Your task to perform on an android device: refresh tabs in the chrome app Image 0: 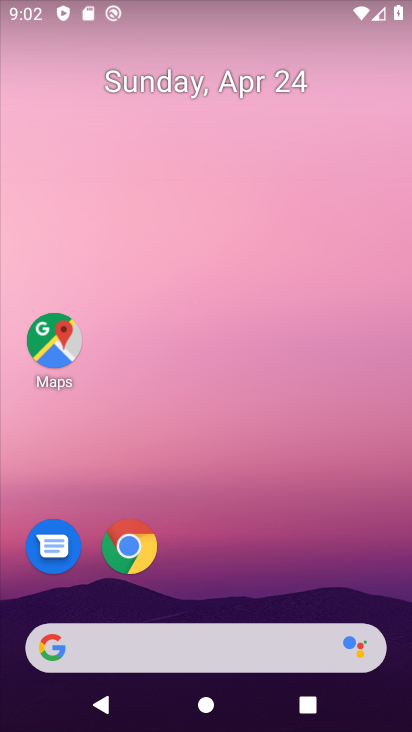
Step 0: drag from (258, 585) to (290, 214)
Your task to perform on an android device: refresh tabs in the chrome app Image 1: 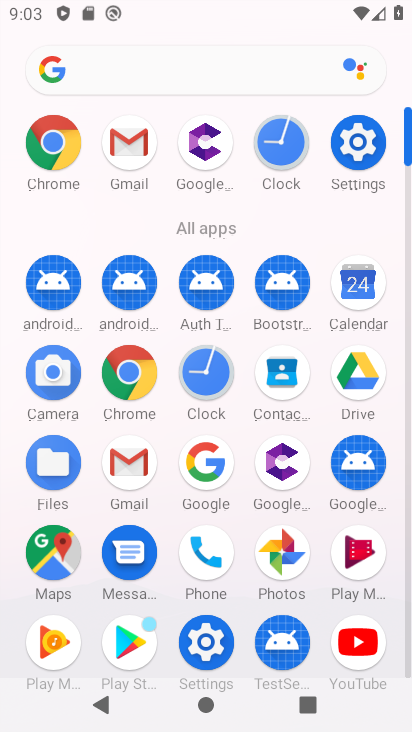
Step 1: click (119, 367)
Your task to perform on an android device: refresh tabs in the chrome app Image 2: 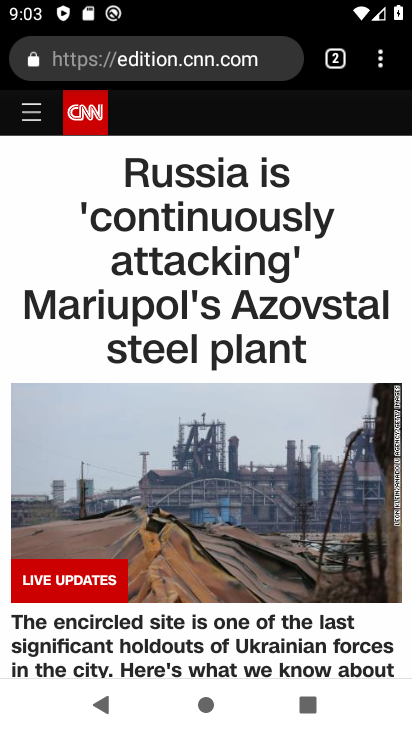
Step 2: click (393, 55)
Your task to perform on an android device: refresh tabs in the chrome app Image 3: 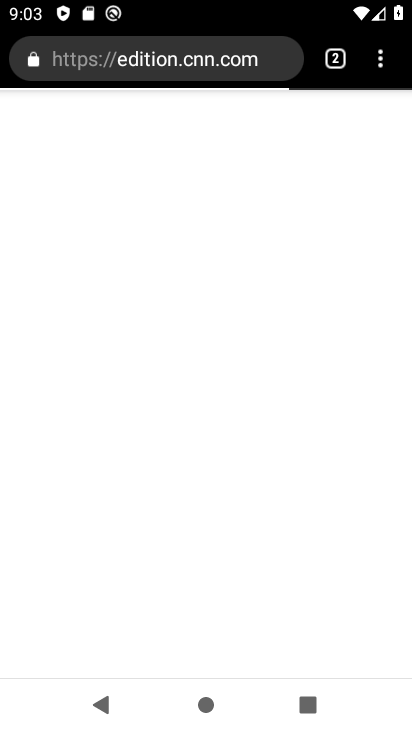
Step 3: click (371, 56)
Your task to perform on an android device: refresh tabs in the chrome app Image 4: 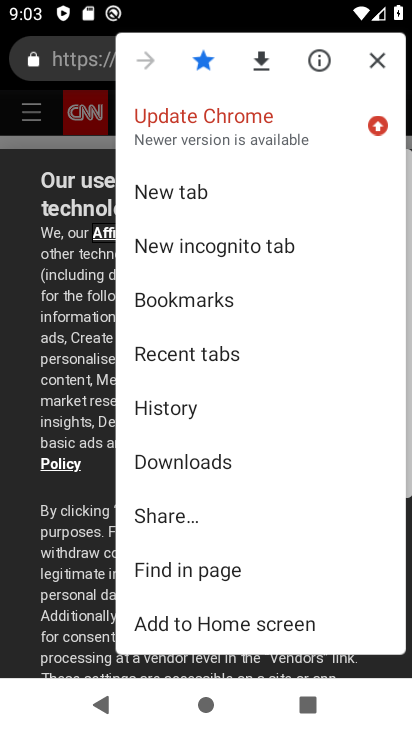
Step 4: click (251, 189)
Your task to perform on an android device: refresh tabs in the chrome app Image 5: 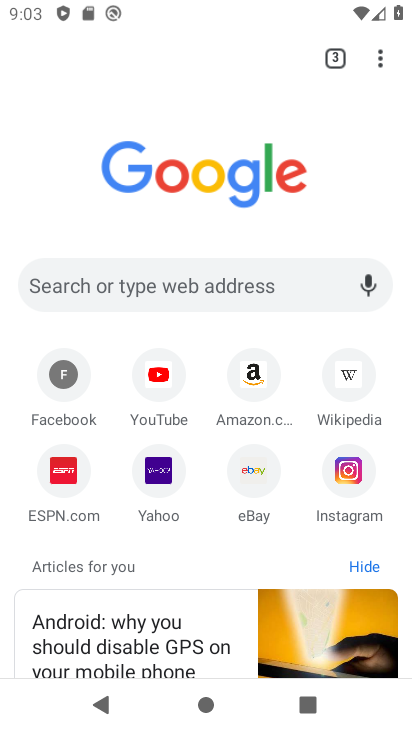
Step 5: click (394, 56)
Your task to perform on an android device: refresh tabs in the chrome app Image 6: 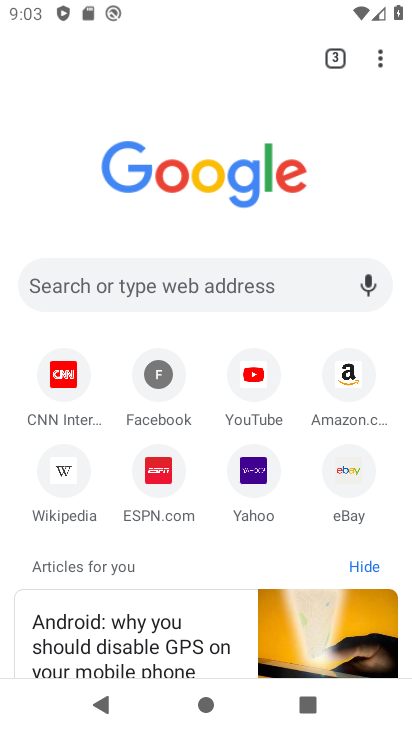
Step 6: click (394, 56)
Your task to perform on an android device: refresh tabs in the chrome app Image 7: 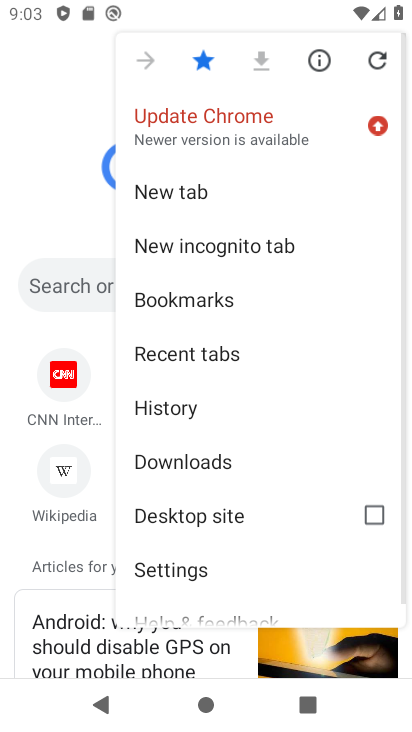
Step 7: click (381, 53)
Your task to perform on an android device: refresh tabs in the chrome app Image 8: 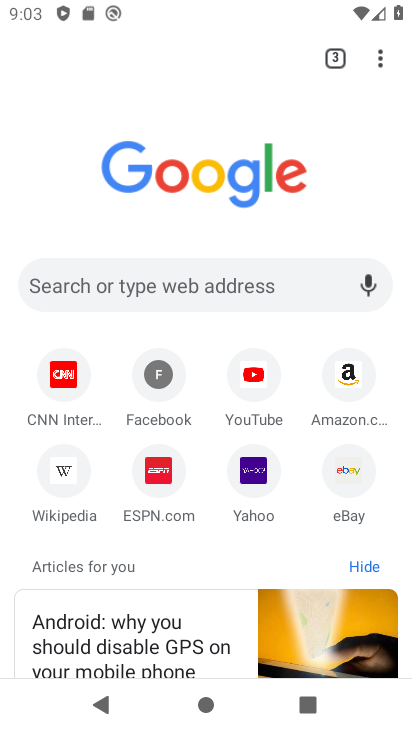
Step 8: task complete